Your task to perform on an android device: Go to settings Image 0: 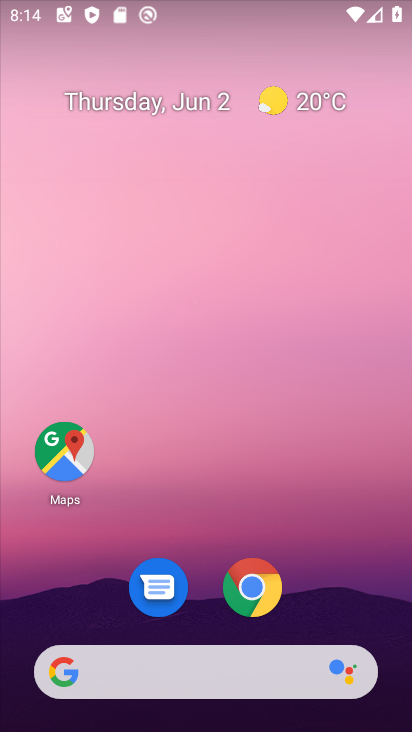
Step 0: drag from (199, 637) to (255, 34)
Your task to perform on an android device: Go to settings Image 1: 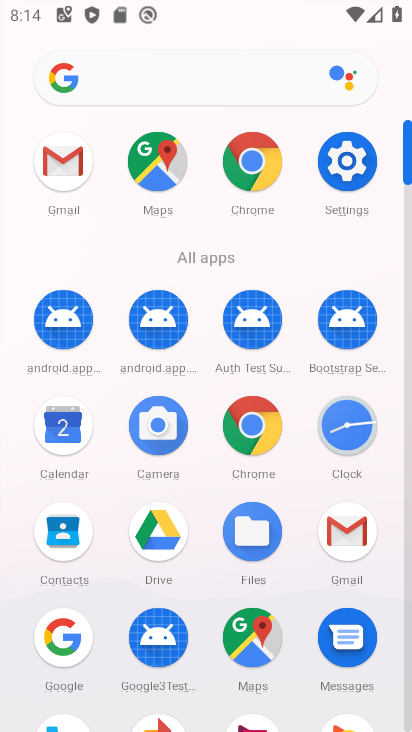
Step 1: click (375, 150)
Your task to perform on an android device: Go to settings Image 2: 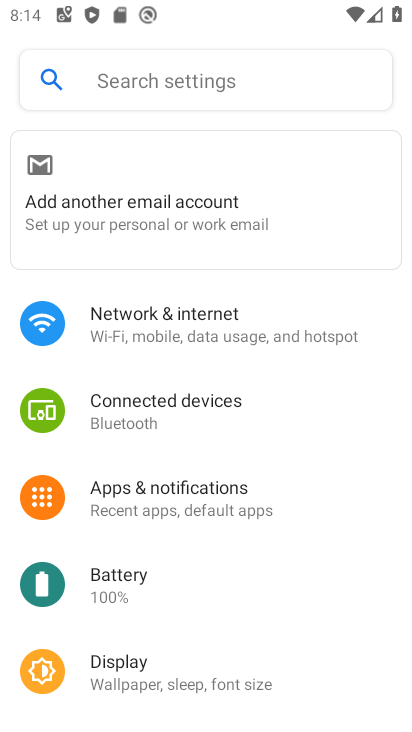
Step 2: task complete